Your task to perform on an android device: show emergency info Image 0: 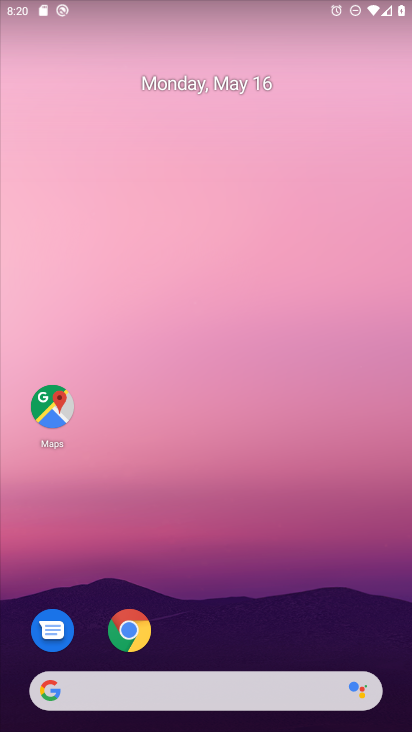
Step 0: drag from (244, 541) to (184, 296)
Your task to perform on an android device: show emergency info Image 1: 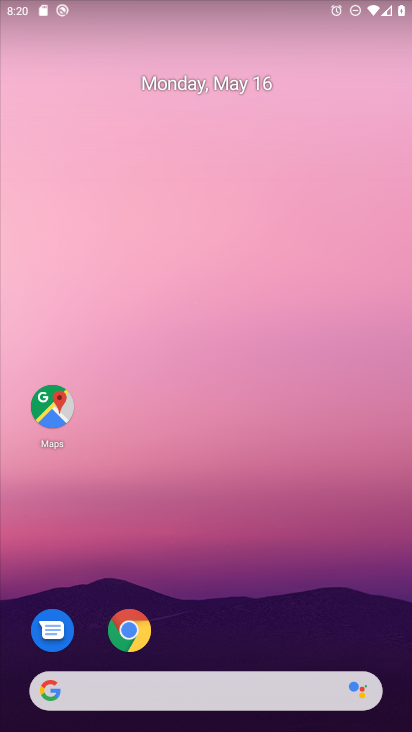
Step 1: drag from (200, 447) to (223, 72)
Your task to perform on an android device: show emergency info Image 2: 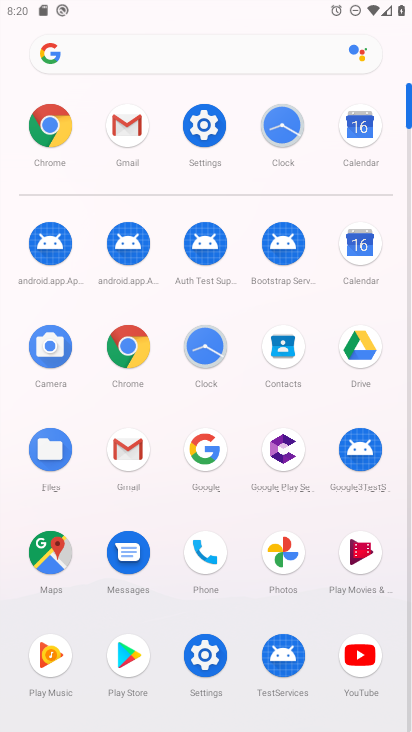
Step 2: click (194, 145)
Your task to perform on an android device: show emergency info Image 3: 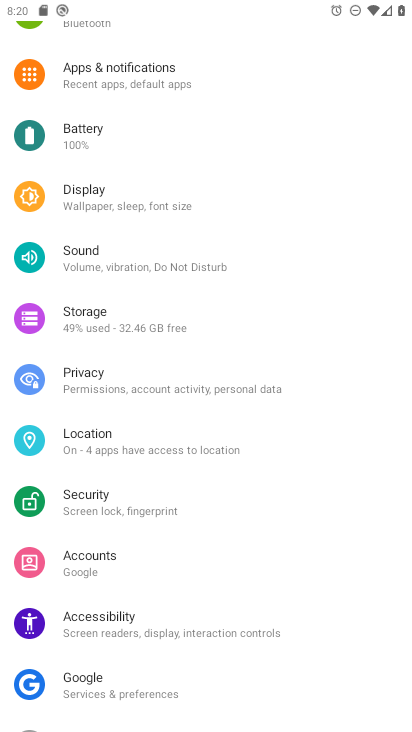
Step 3: drag from (199, 606) to (204, 270)
Your task to perform on an android device: show emergency info Image 4: 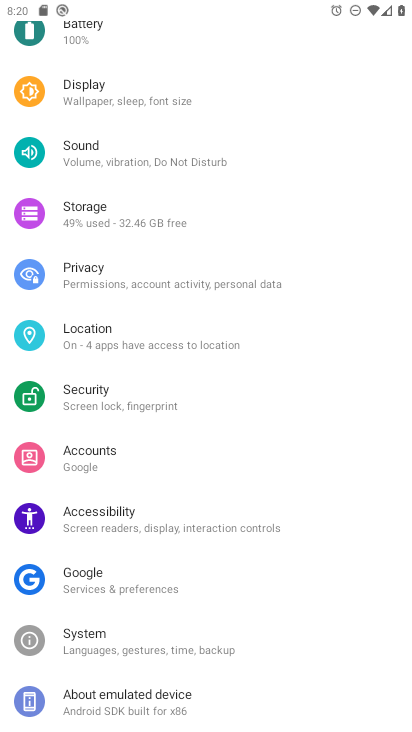
Step 4: drag from (341, 110) to (321, 640)
Your task to perform on an android device: show emergency info Image 5: 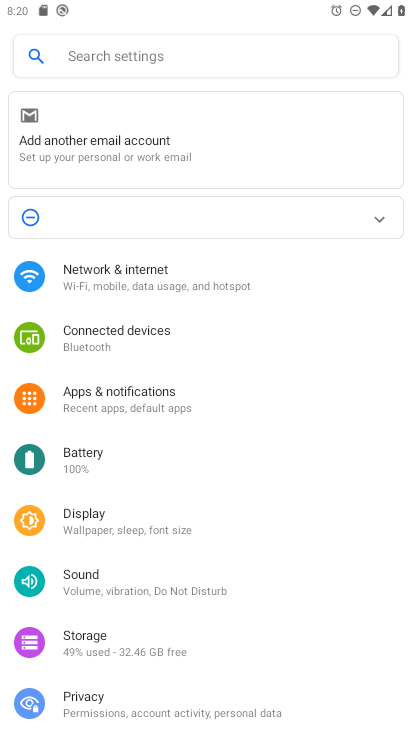
Step 5: drag from (235, 569) to (251, 93)
Your task to perform on an android device: show emergency info Image 6: 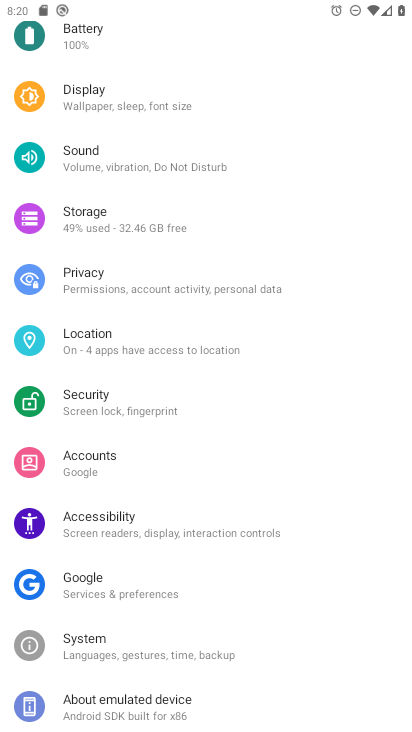
Step 6: drag from (303, 668) to (305, 326)
Your task to perform on an android device: show emergency info Image 7: 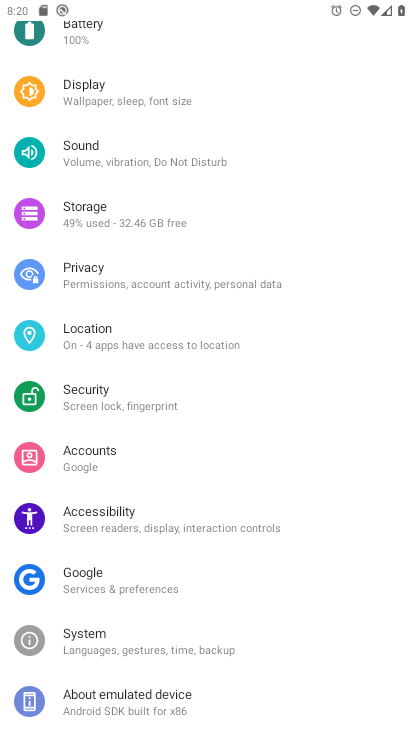
Step 7: click (190, 689)
Your task to perform on an android device: show emergency info Image 8: 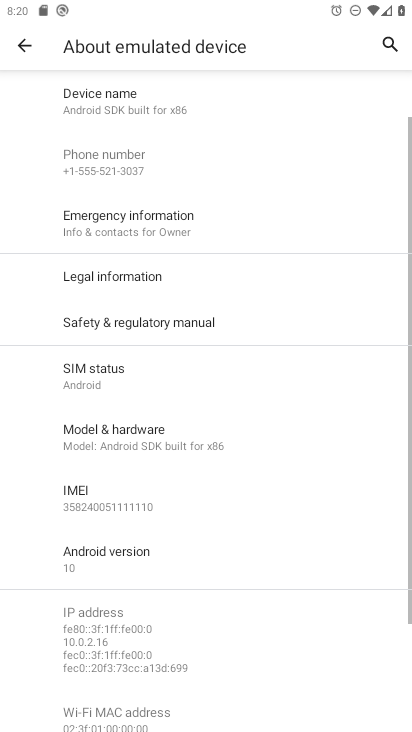
Step 8: drag from (235, 534) to (251, 22)
Your task to perform on an android device: show emergency info Image 9: 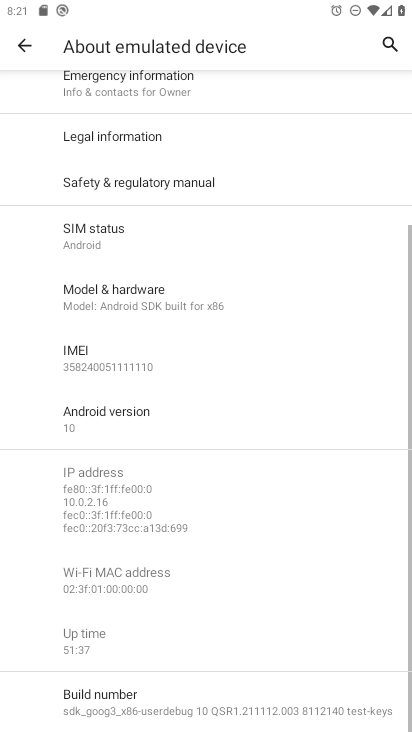
Step 9: drag from (210, 174) to (219, 624)
Your task to perform on an android device: show emergency info Image 10: 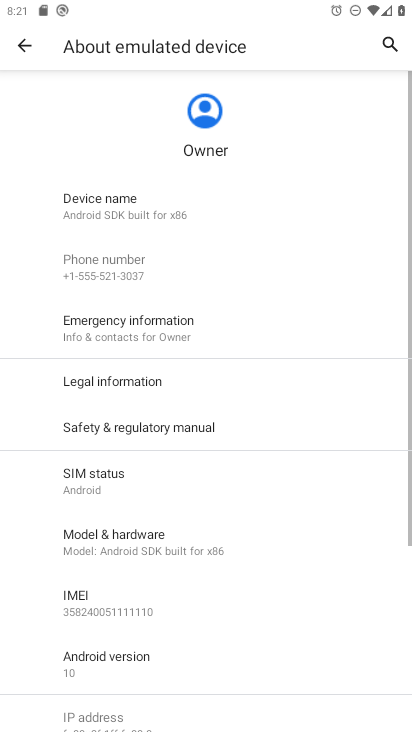
Step 10: click (144, 325)
Your task to perform on an android device: show emergency info Image 11: 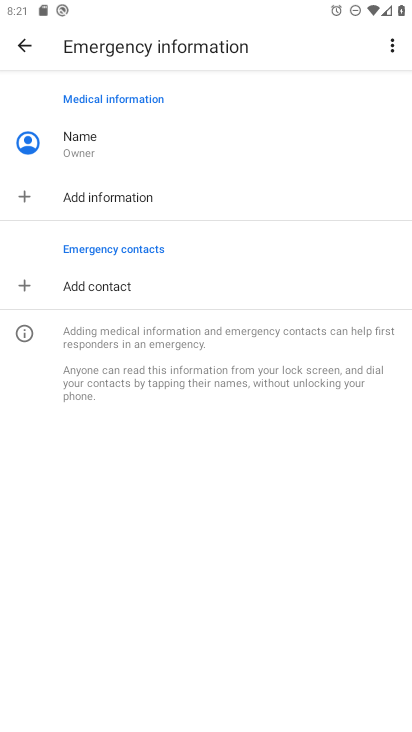
Step 11: task complete